Your task to perform on an android device: Open maps Image 0: 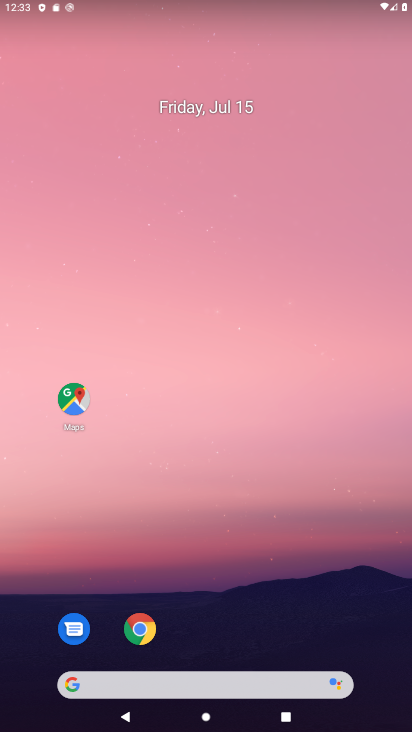
Step 0: drag from (297, 604) to (261, 140)
Your task to perform on an android device: Open maps Image 1: 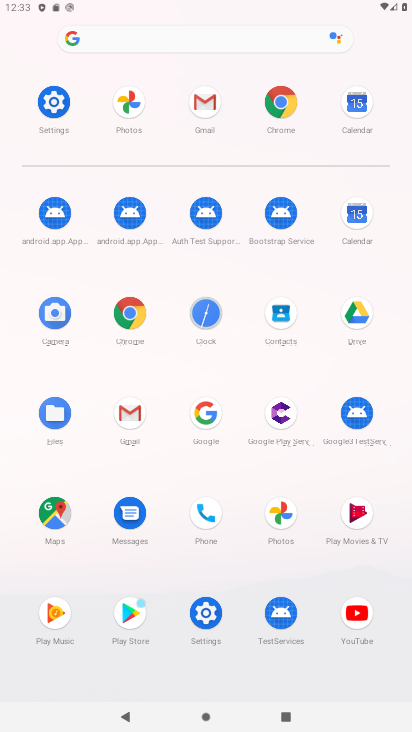
Step 1: click (49, 514)
Your task to perform on an android device: Open maps Image 2: 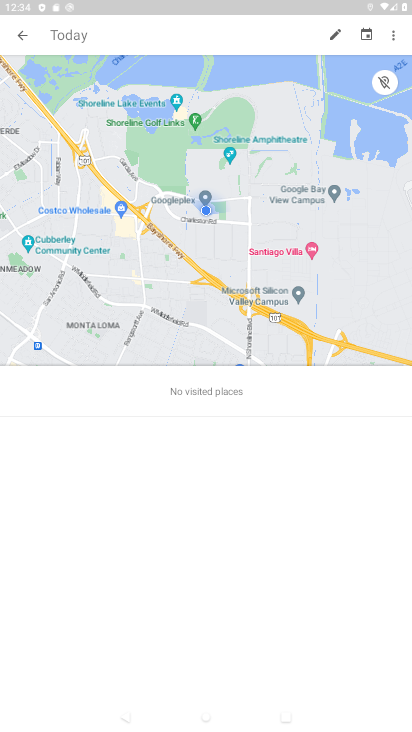
Step 2: task complete